Your task to perform on an android device: toggle javascript in the chrome app Image 0: 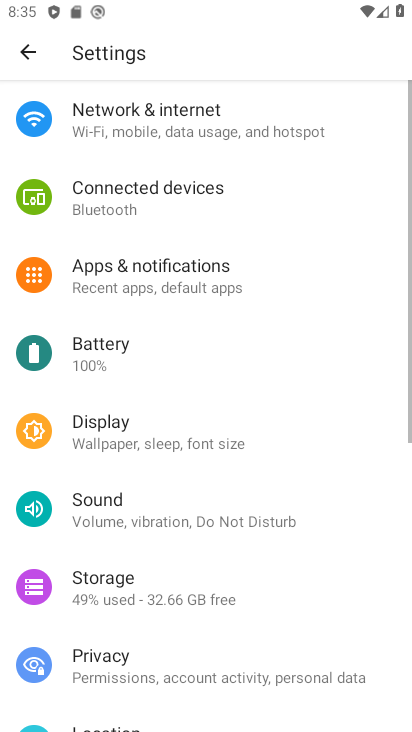
Step 0: press home button
Your task to perform on an android device: toggle javascript in the chrome app Image 1: 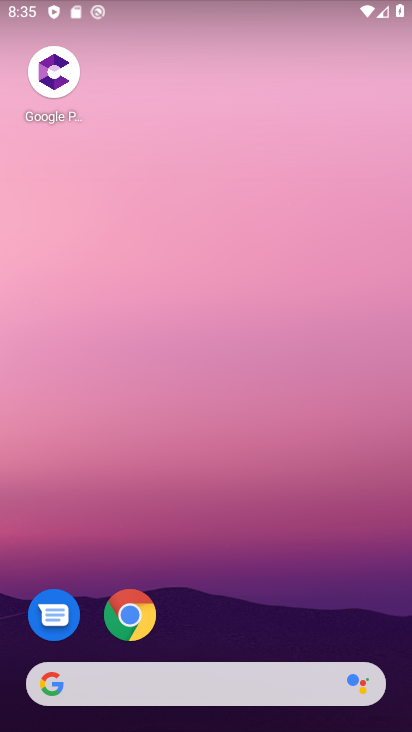
Step 1: click (135, 608)
Your task to perform on an android device: toggle javascript in the chrome app Image 2: 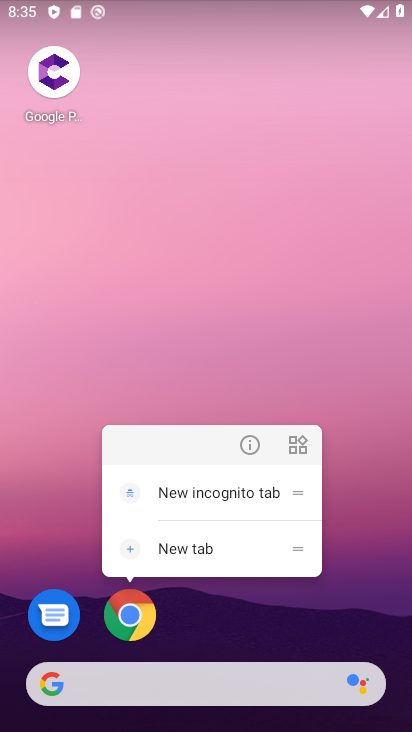
Step 2: click (135, 608)
Your task to perform on an android device: toggle javascript in the chrome app Image 3: 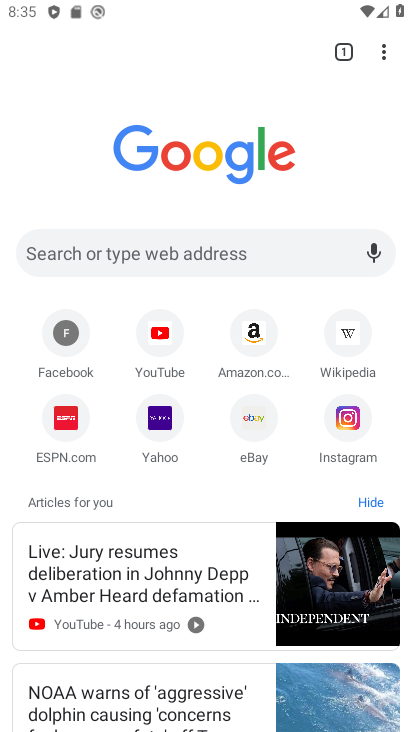
Step 3: click (387, 51)
Your task to perform on an android device: toggle javascript in the chrome app Image 4: 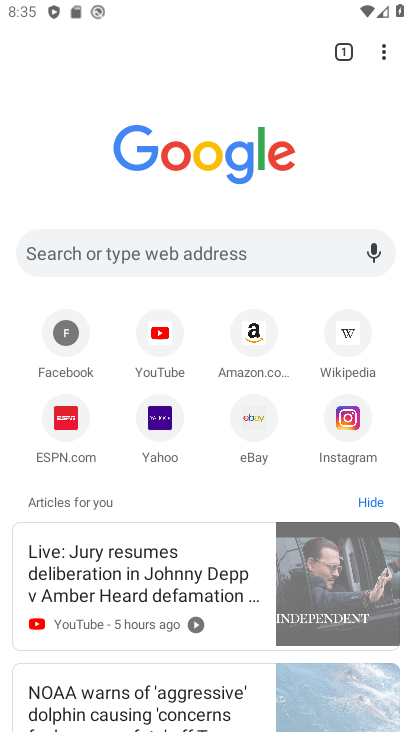
Step 4: drag from (387, 51) to (186, 429)
Your task to perform on an android device: toggle javascript in the chrome app Image 5: 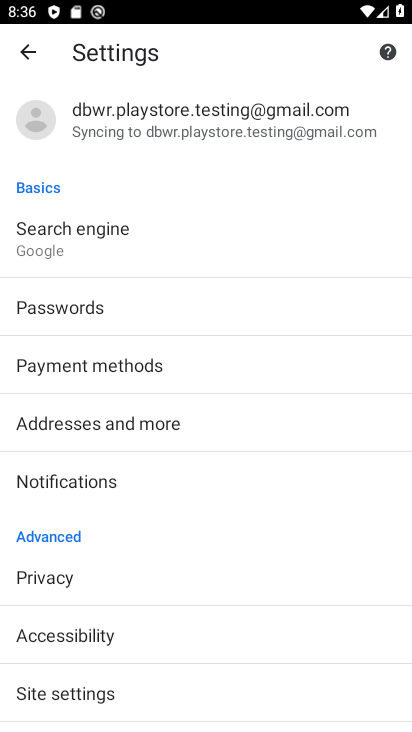
Step 5: click (77, 687)
Your task to perform on an android device: toggle javascript in the chrome app Image 6: 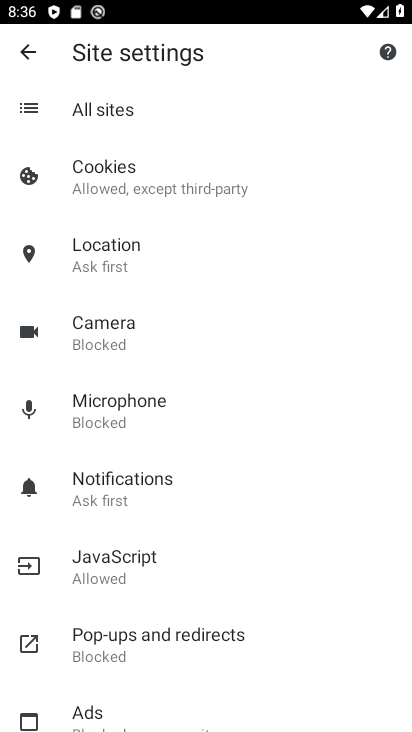
Step 6: click (88, 575)
Your task to perform on an android device: toggle javascript in the chrome app Image 7: 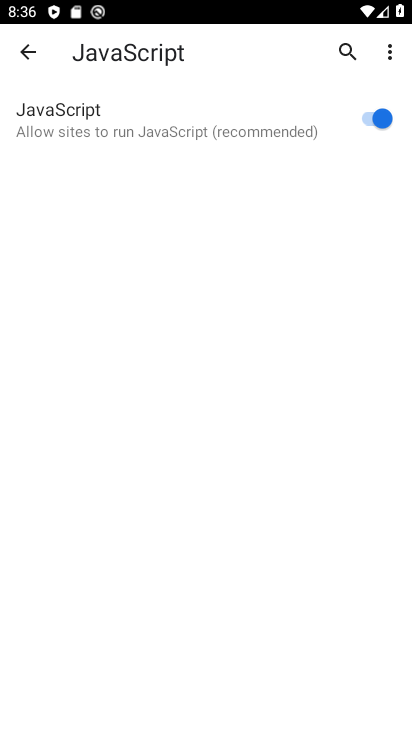
Step 7: task complete